Your task to perform on an android device: Toggle the flashlight Image 0: 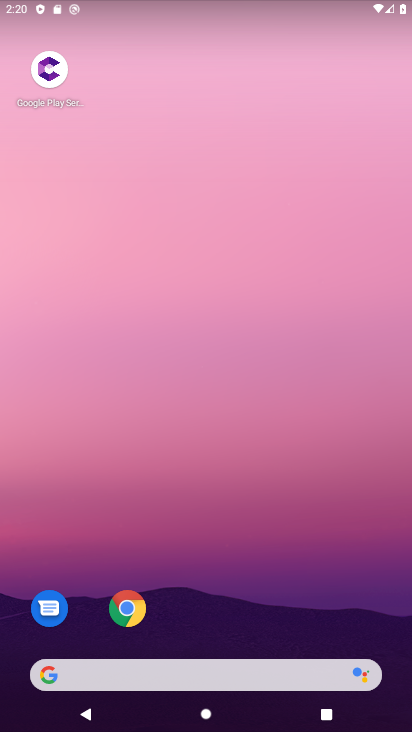
Step 0: drag from (271, 5) to (273, 423)
Your task to perform on an android device: Toggle the flashlight Image 1: 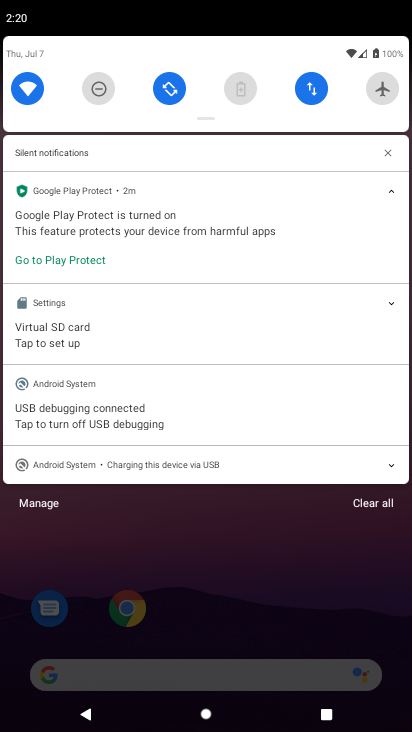
Step 1: drag from (270, 85) to (230, 478)
Your task to perform on an android device: Toggle the flashlight Image 2: 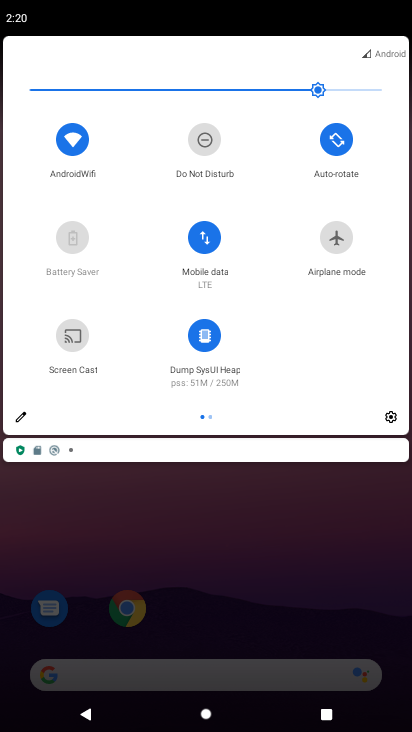
Step 2: drag from (382, 305) to (0, 316)
Your task to perform on an android device: Toggle the flashlight Image 3: 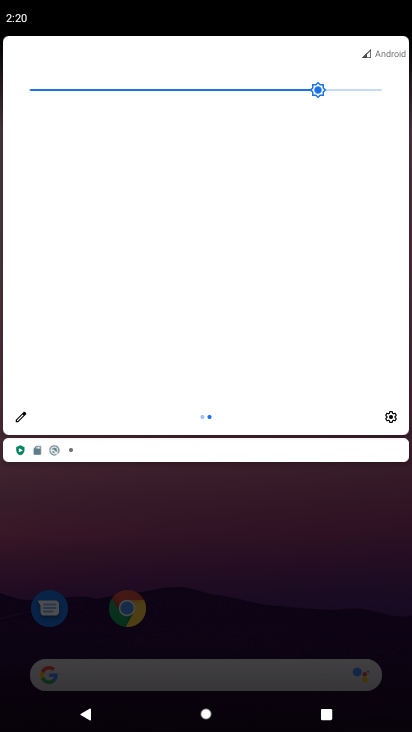
Step 3: click (18, 414)
Your task to perform on an android device: Toggle the flashlight Image 4: 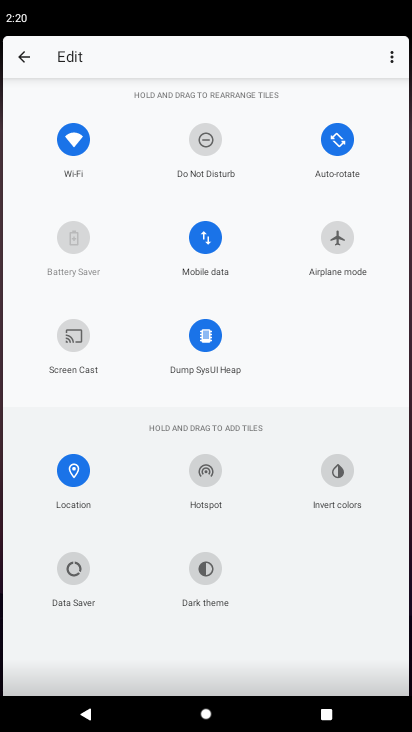
Step 4: task complete